Your task to perform on an android device: What's the weather going to be tomorrow? Image 0: 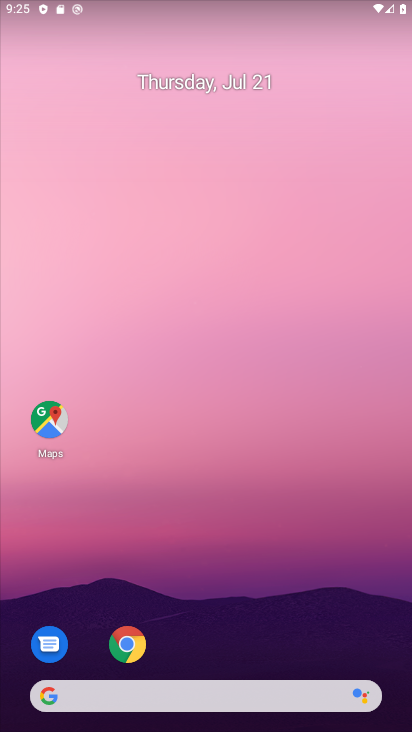
Step 0: click (203, 682)
Your task to perform on an android device: What's the weather going to be tomorrow? Image 1: 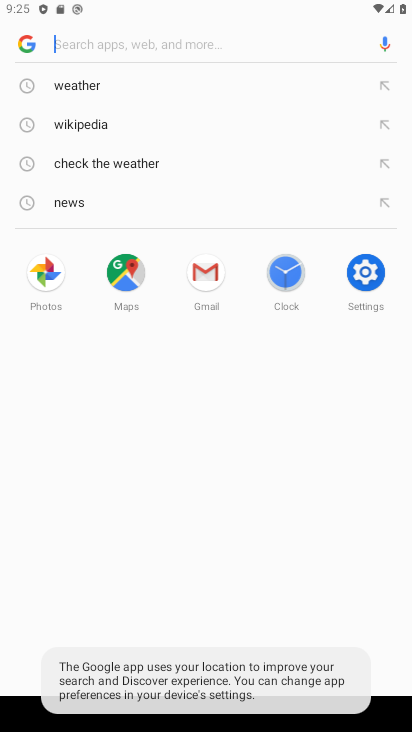
Step 1: type "wather"
Your task to perform on an android device: What's the weather going to be tomorrow? Image 2: 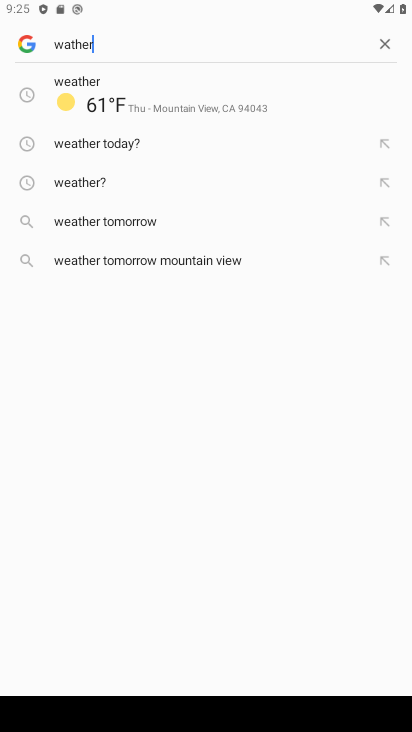
Step 2: task complete